Your task to perform on an android device: toggle sleep mode Image 0: 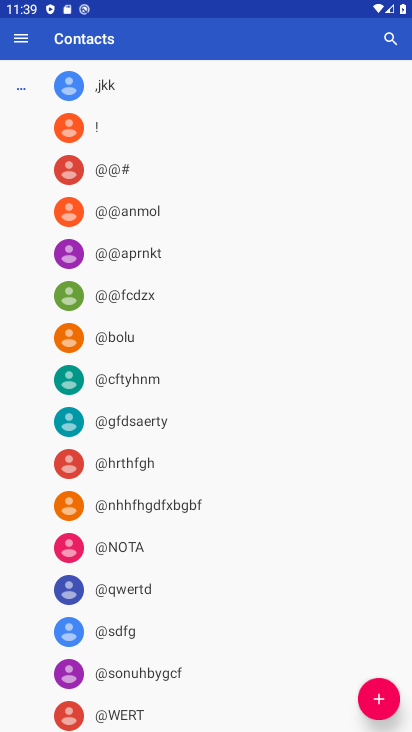
Step 0: press home button
Your task to perform on an android device: toggle sleep mode Image 1: 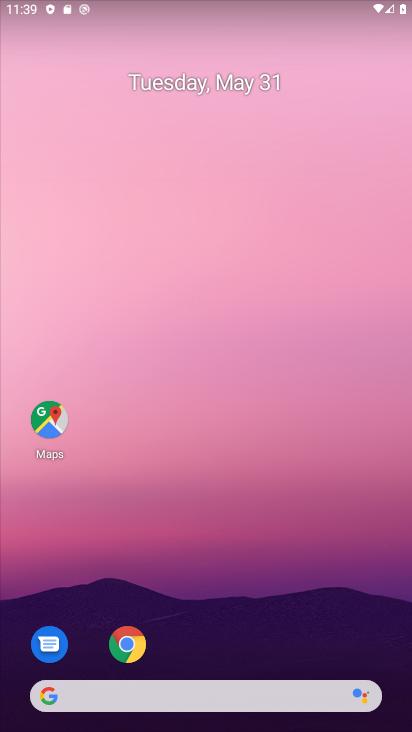
Step 1: drag from (396, 640) to (305, 263)
Your task to perform on an android device: toggle sleep mode Image 2: 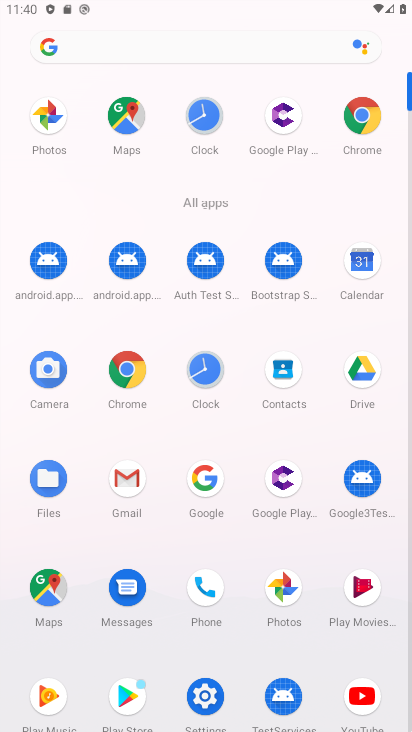
Step 2: click (215, 691)
Your task to perform on an android device: toggle sleep mode Image 3: 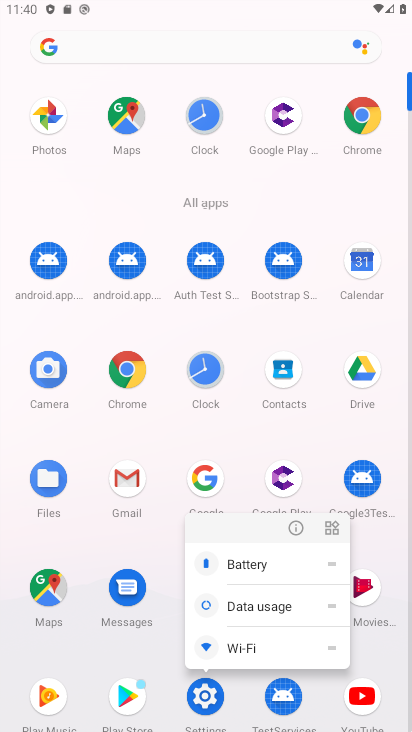
Step 3: click (214, 686)
Your task to perform on an android device: toggle sleep mode Image 4: 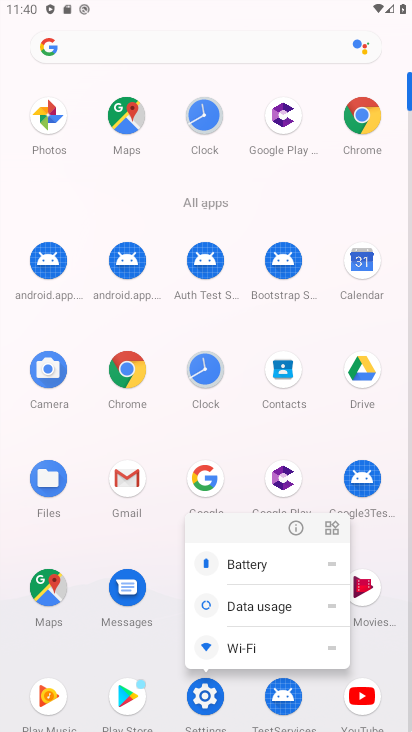
Step 4: click (206, 699)
Your task to perform on an android device: toggle sleep mode Image 5: 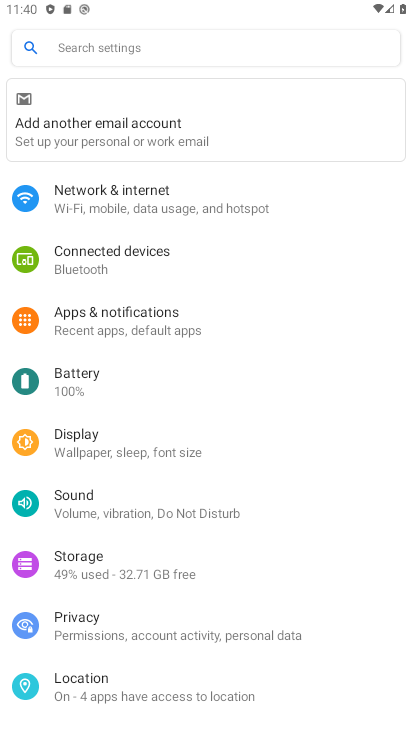
Step 5: click (110, 43)
Your task to perform on an android device: toggle sleep mode Image 6: 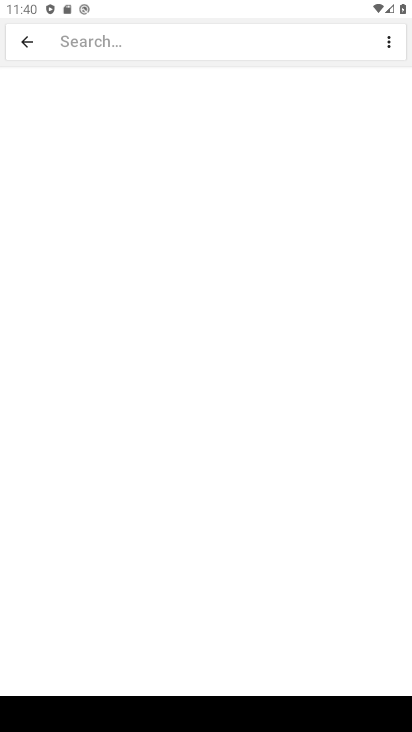
Step 6: type "sleep mode"
Your task to perform on an android device: toggle sleep mode Image 7: 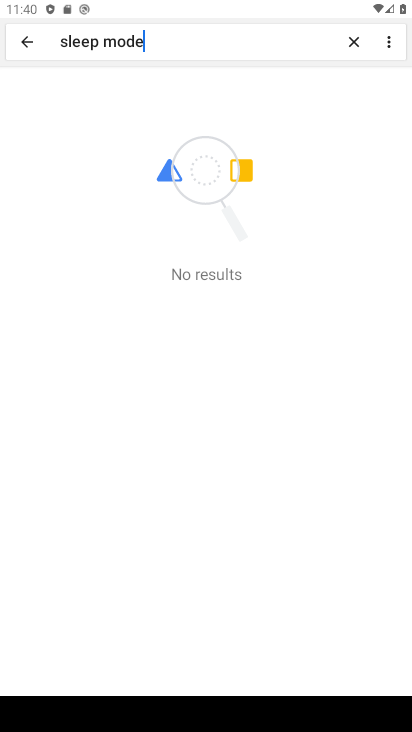
Step 7: task complete